Your task to perform on an android device: Go to Amazon Image 0: 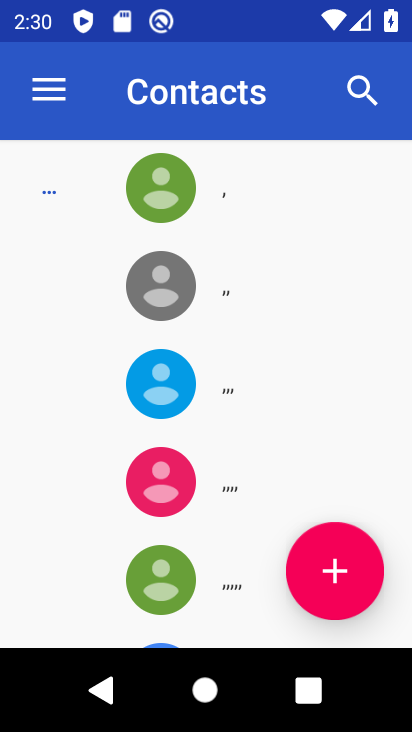
Step 0: press back button
Your task to perform on an android device: Go to Amazon Image 1: 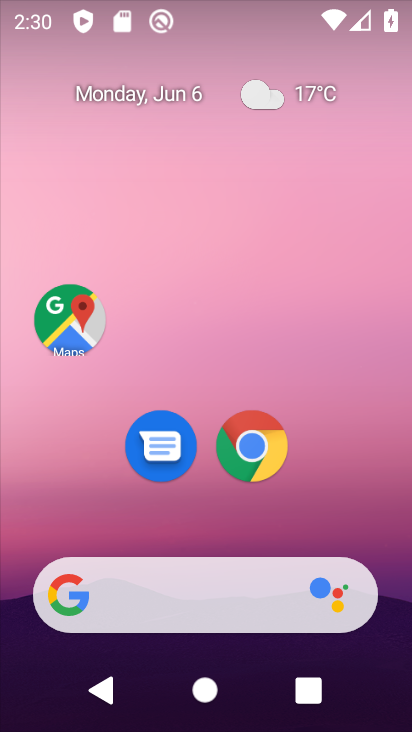
Step 1: click (255, 439)
Your task to perform on an android device: Go to Amazon Image 2: 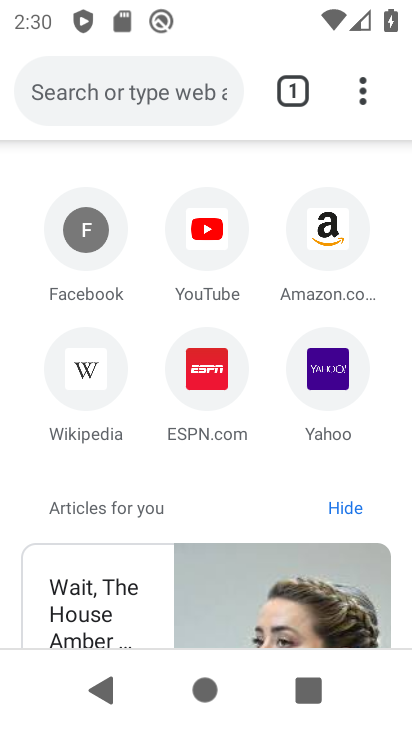
Step 2: click (322, 219)
Your task to perform on an android device: Go to Amazon Image 3: 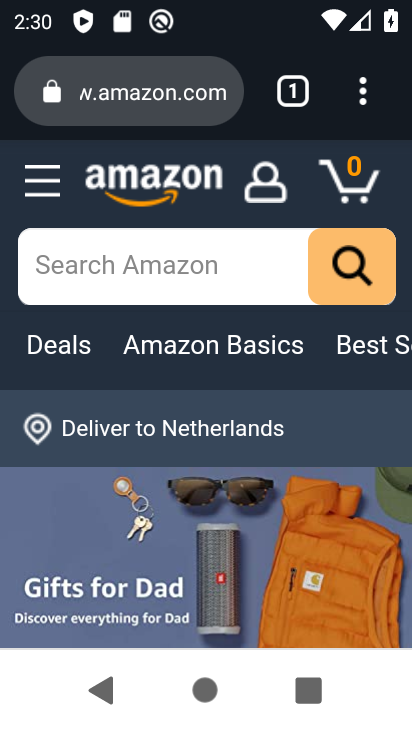
Step 3: task complete